Your task to perform on an android device: toggle location history Image 0: 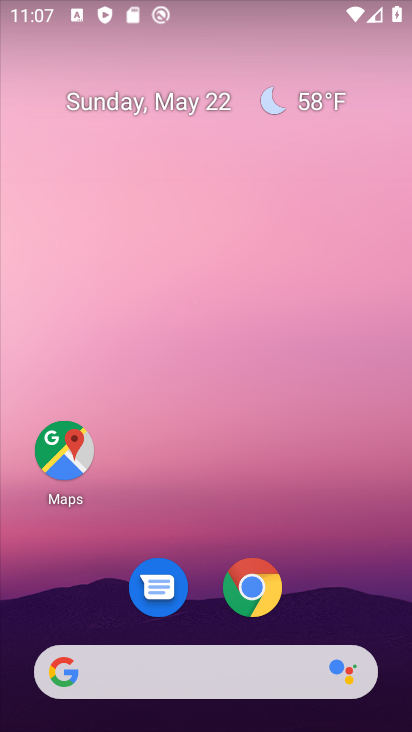
Step 0: drag from (332, 535) to (297, 44)
Your task to perform on an android device: toggle location history Image 1: 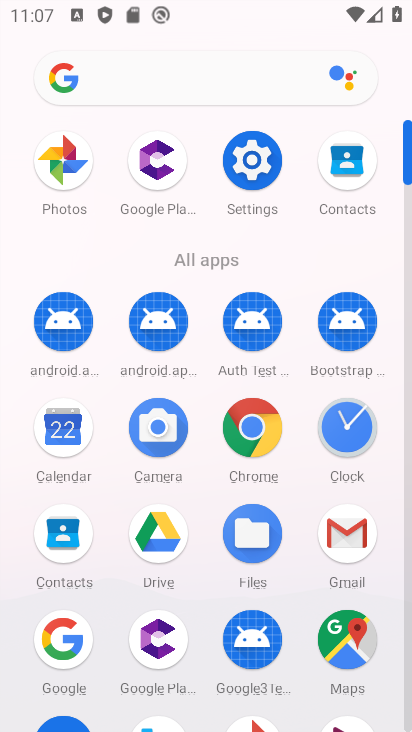
Step 1: click (247, 146)
Your task to perform on an android device: toggle location history Image 2: 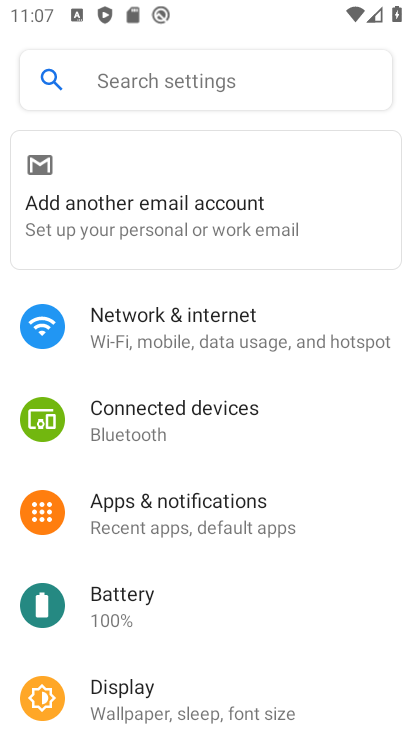
Step 2: drag from (278, 614) to (295, 206)
Your task to perform on an android device: toggle location history Image 3: 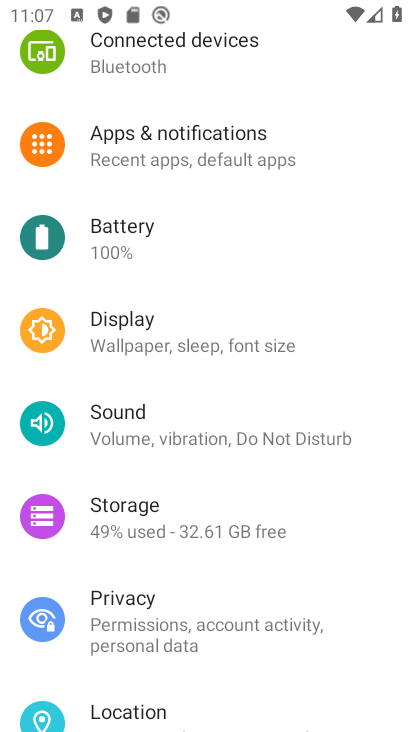
Step 3: drag from (205, 595) to (246, 282)
Your task to perform on an android device: toggle location history Image 4: 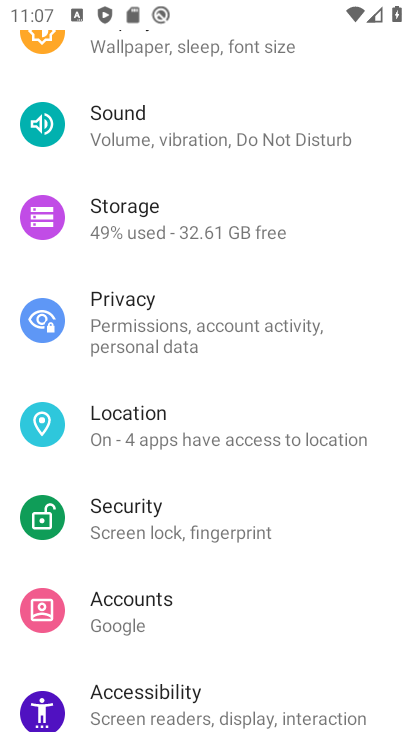
Step 4: click (248, 417)
Your task to perform on an android device: toggle location history Image 5: 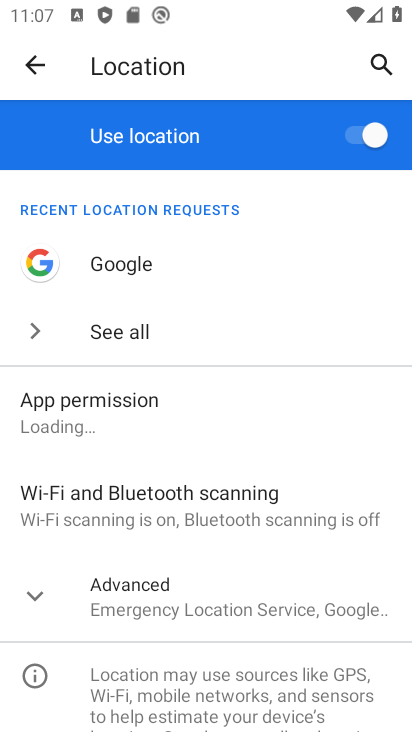
Step 5: click (29, 590)
Your task to perform on an android device: toggle location history Image 6: 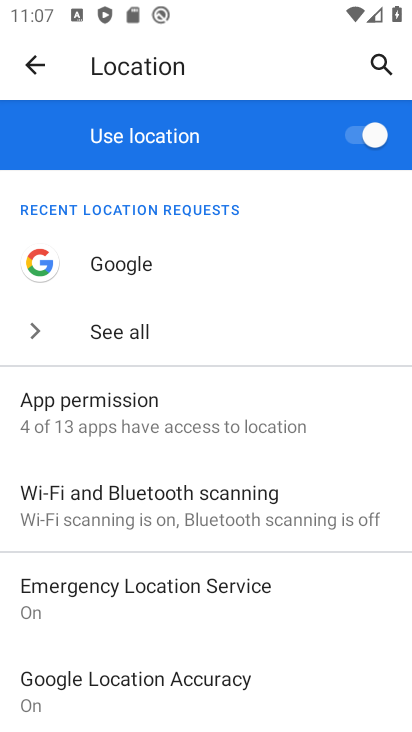
Step 6: drag from (163, 605) to (239, 313)
Your task to perform on an android device: toggle location history Image 7: 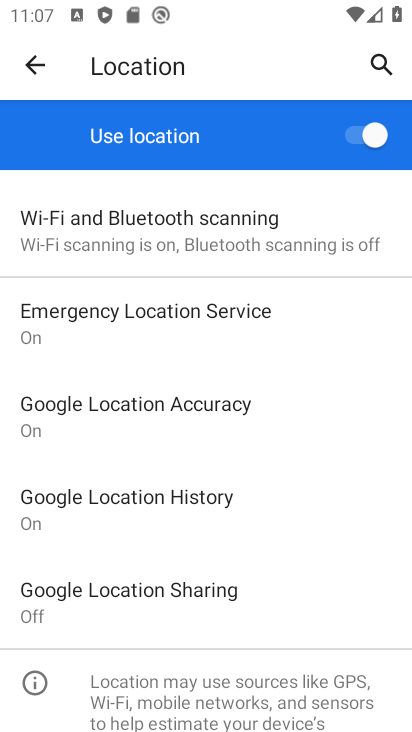
Step 7: click (215, 501)
Your task to perform on an android device: toggle location history Image 8: 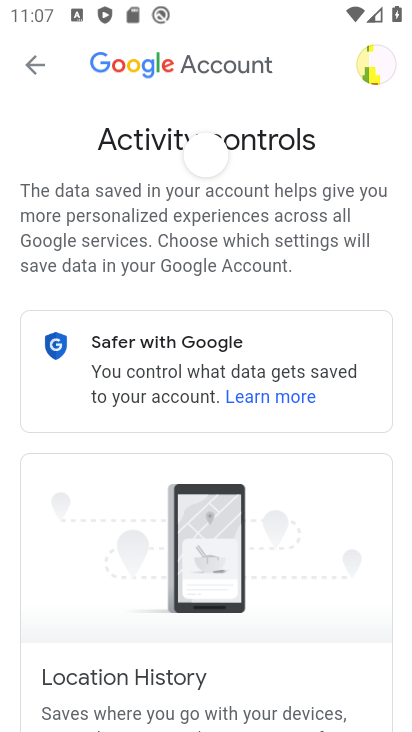
Step 8: drag from (276, 564) to (340, 152)
Your task to perform on an android device: toggle location history Image 9: 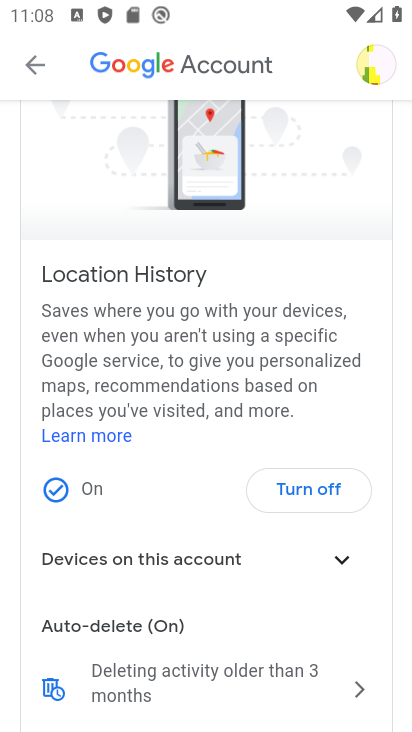
Step 9: click (310, 500)
Your task to perform on an android device: toggle location history Image 10: 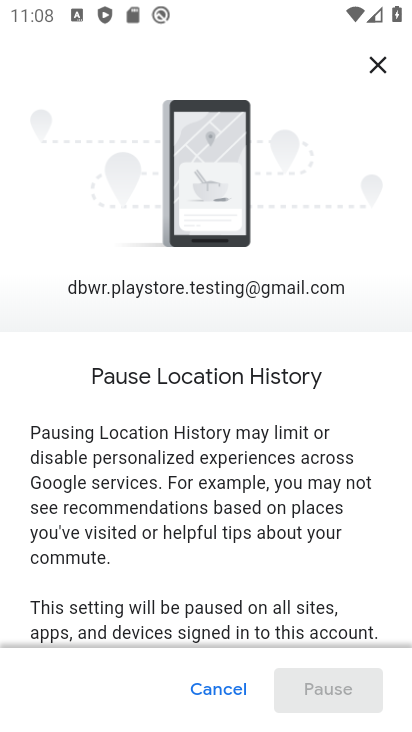
Step 10: drag from (294, 580) to (316, 62)
Your task to perform on an android device: toggle location history Image 11: 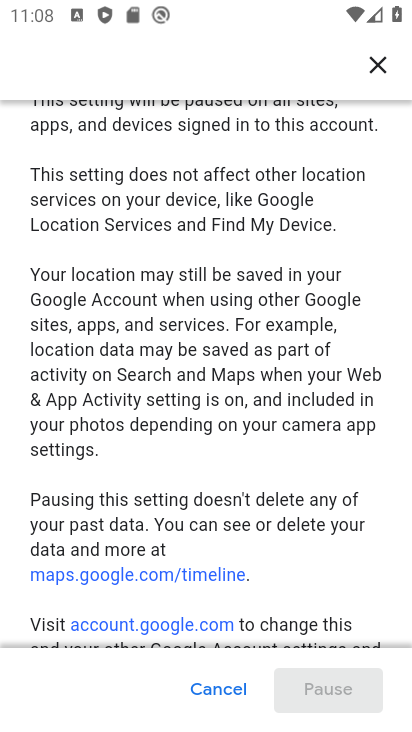
Step 11: drag from (245, 526) to (265, 48)
Your task to perform on an android device: toggle location history Image 12: 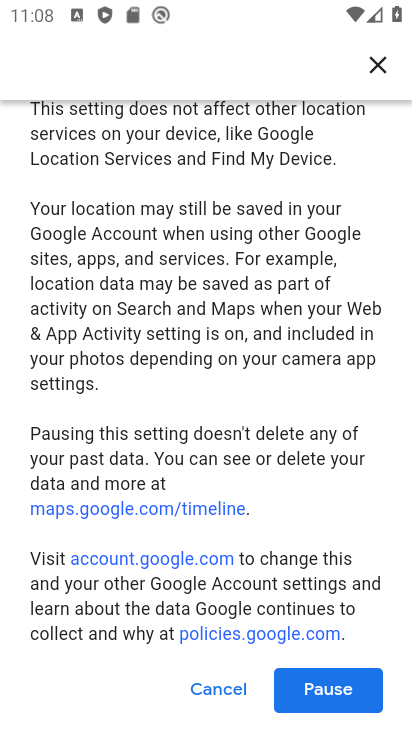
Step 12: click (333, 694)
Your task to perform on an android device: toggle location history Image 13: 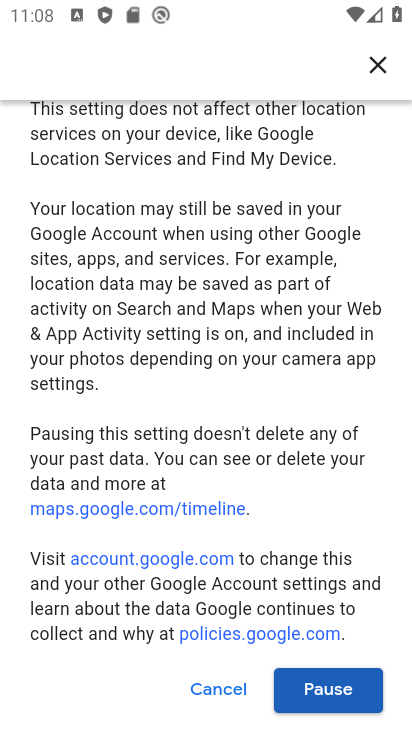
Step 13: click (331, 686)
Your task to perform on an android device: toggle location history Image 14: 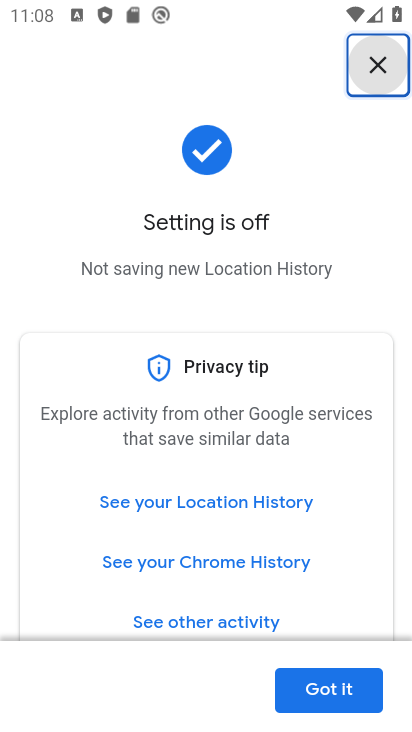
Step 14: click (331, 686)
Your task to perform on an android device: toggle location history Image 15: 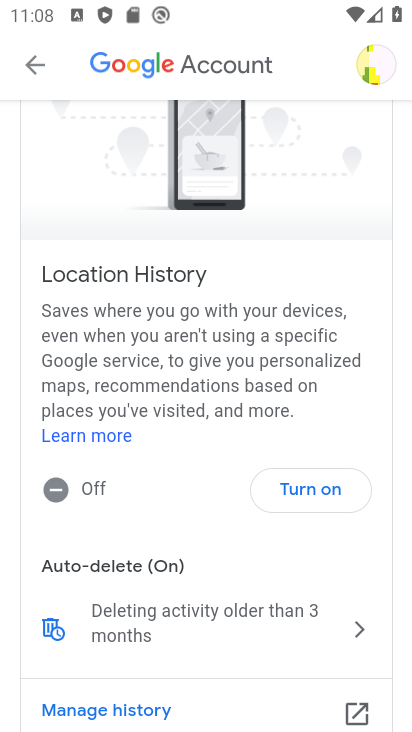
Step 15: task complete